Your task to perform on an android device: Go to wifi settings Image 0: 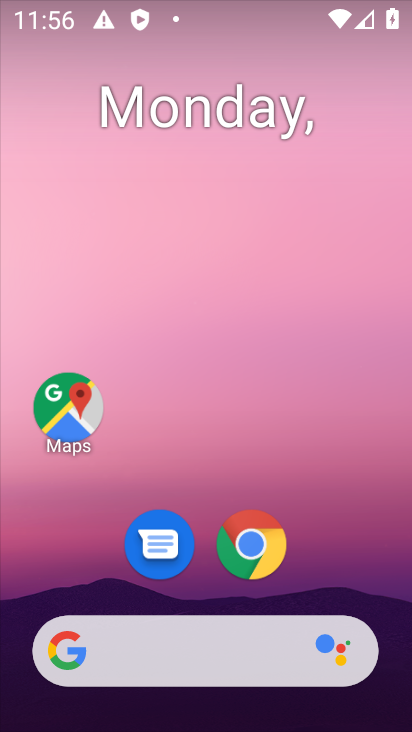
Step 0: drag from (353, 477) to (280, 5)
Your task to perform on an android device: Go to wifi settings Image 1: 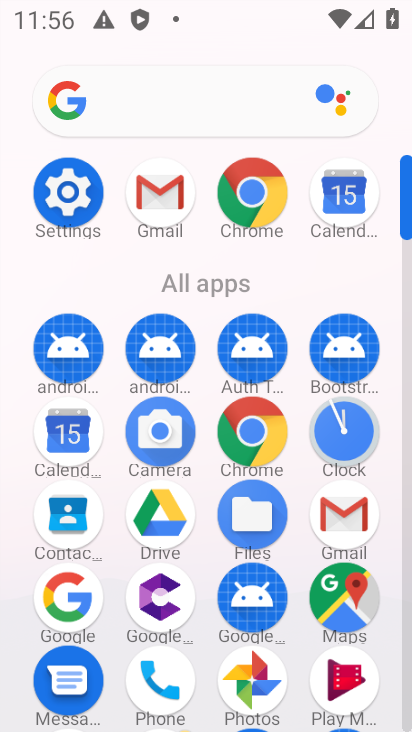
Step 1: click (68, 179)
Your task to perform on an android device: Go to wifi settings Image 2: 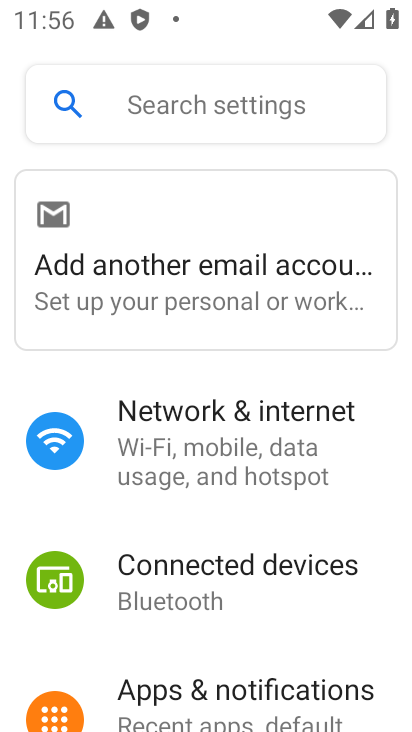
Step 2: click (207, 422)
Your task to perform on an android device: Go to wifi settings Image 3: 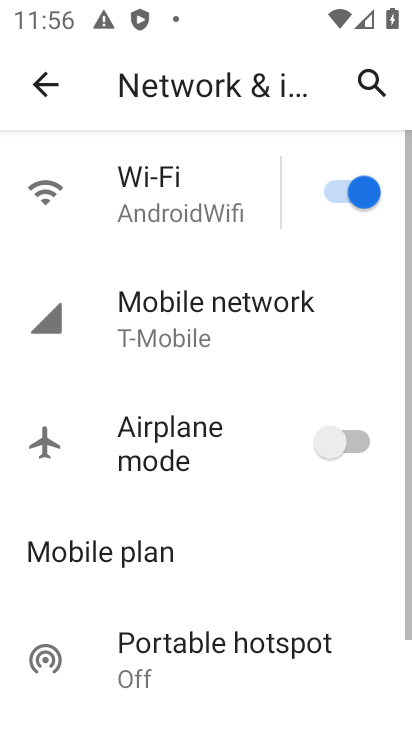
Step 3: click (128, 196)
Your task to perform on an android device: Go to wifi settings Image 4: 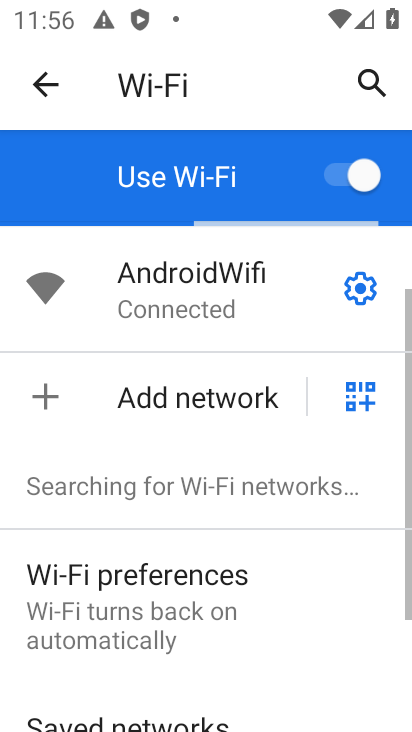
Step 4: click (353, 277)
Your task to perform on an android device: Go to wifi settings Image 5: 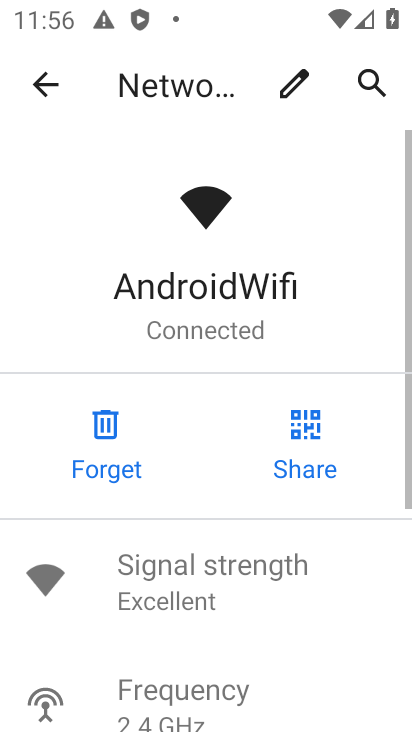
Step 5: task complete